Your task to perform on an android device: turn off data saver in the chrome app Image 0: 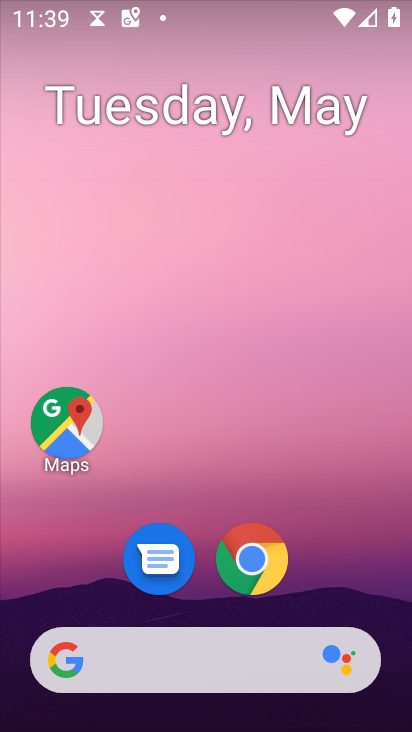
Step 0: drag from (350, 568) to (370, 51)
Your task to perform on an android device: turn off data saver in the chrome app Image 1: 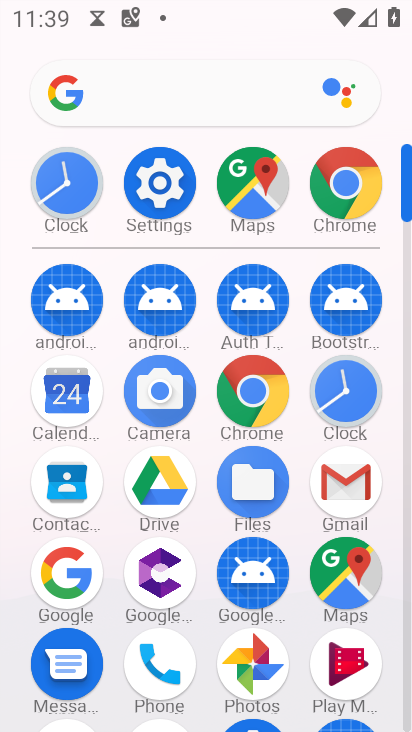
Step 1: click (349, 200)
Your task to perform on an android device: turn off data saver in the chrome app Image 2: 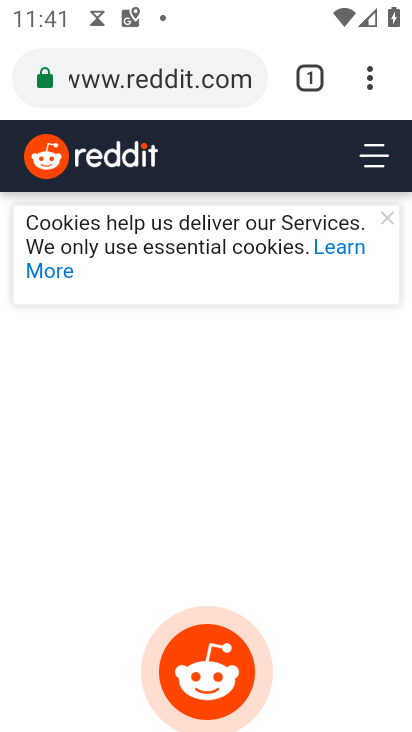
Step 2: drag from (368, 88) to (147, 617)
Your task to perform on an android device: turn off data saver in the chrome app Image 3: 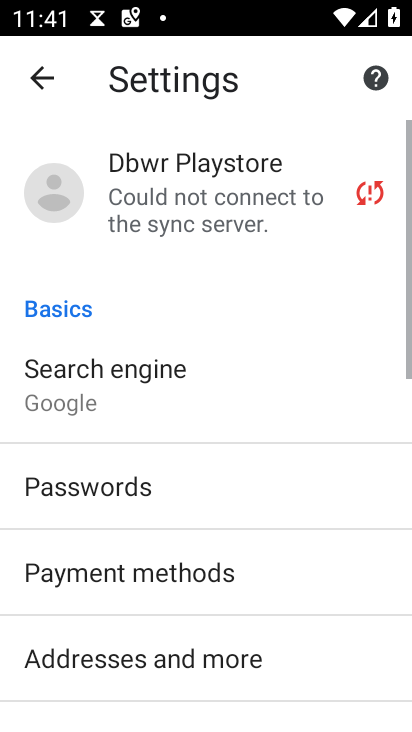
Step 3: drag from (153, 602) to (153, 145)
Your task to perform on an android device: turn off data saver in the chrome app Image 4: 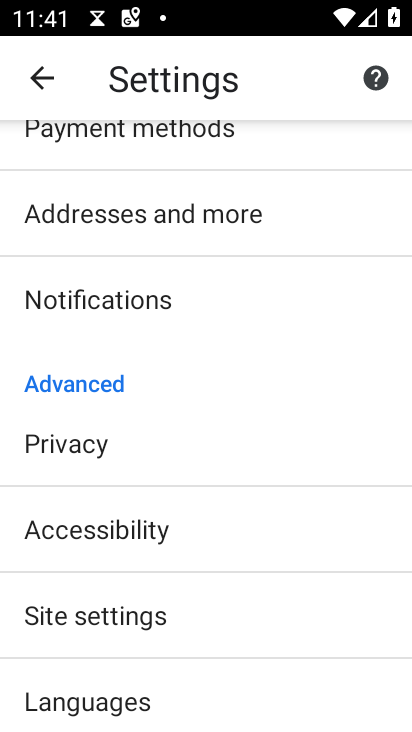
Step 4: drag from (96, 688) to (127, 209)
Your task to perform on an android device: turn off data saver in the chrome app Image 5: 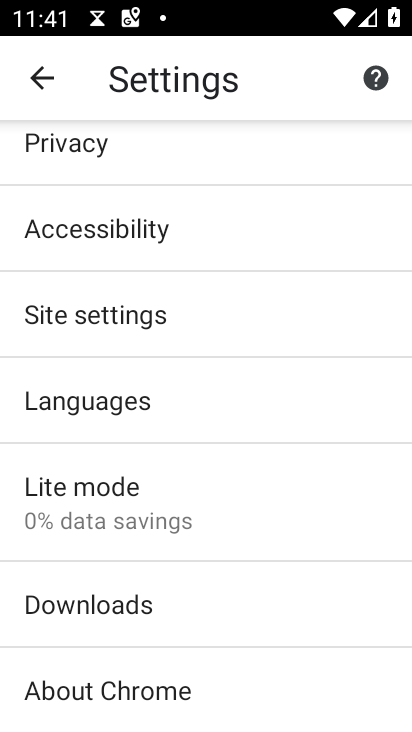
Step 5: click (66, 499)
Your task to perform on an android device: turn off data saver in the chrome app Image 6: 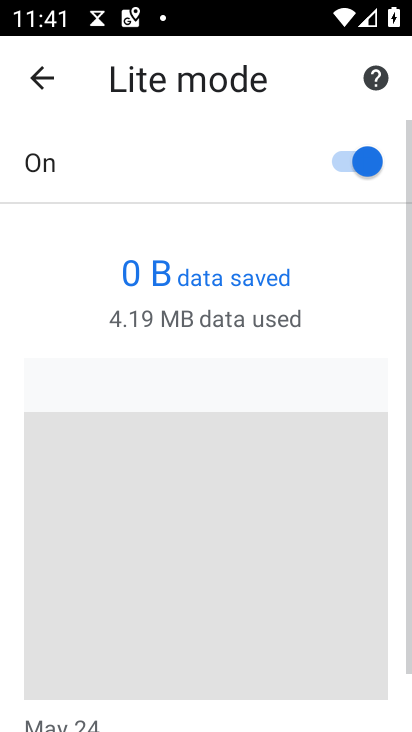
Step 6: click (353, 152)
Your task to perform on an android device: turn off data saver in the chrome app Image 7: 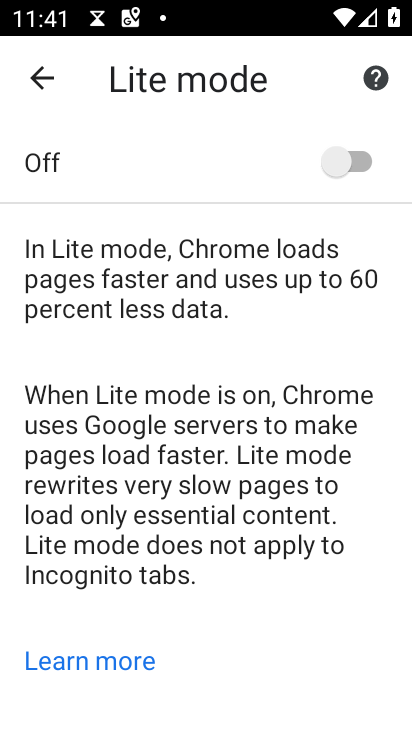
Step 7: task complete